Your task to perform on an android device: delete browsing data in the chrome app Image 0: 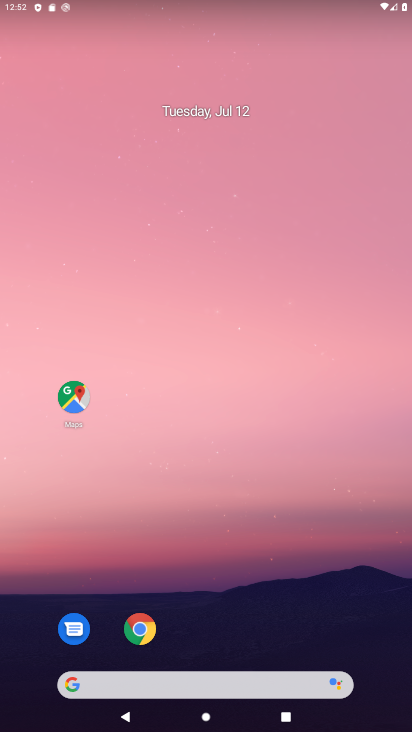
Step 0: press home button
Your task to perform on an android device: delete browsing data in the chrome app Image 1: 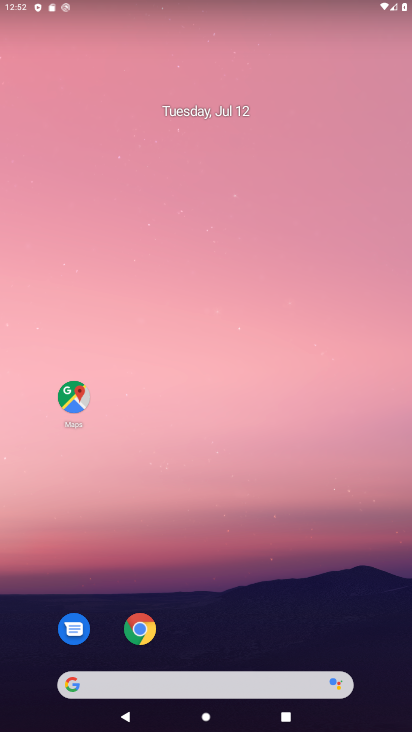
Step 1: click (135, 622)
Your task to perform on an android device: delete browsing data in the chrome app Image 2: 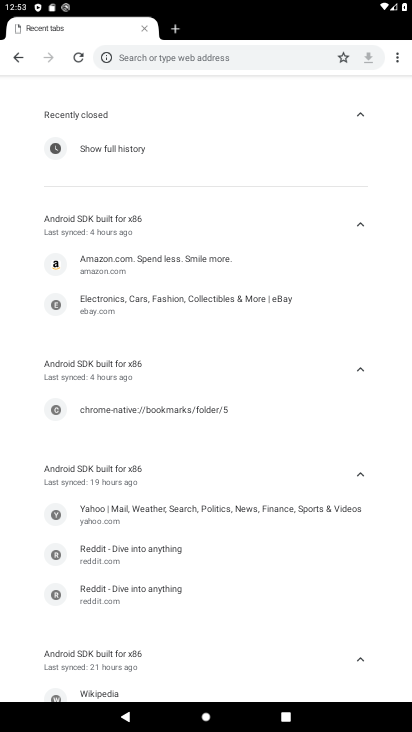
Step 2: press home button
Your task to perform on an android device: delete browsing data in the chrome app Image 3: 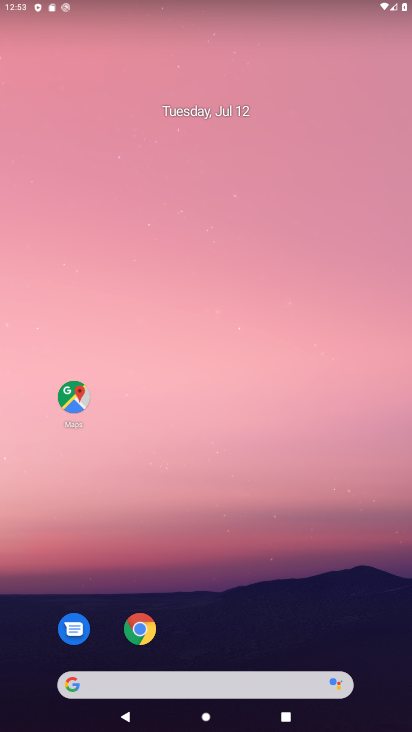
Step 3: click (141, 631)
Your task to perform on an android device: delete browsing data in the chrome app Image 4: 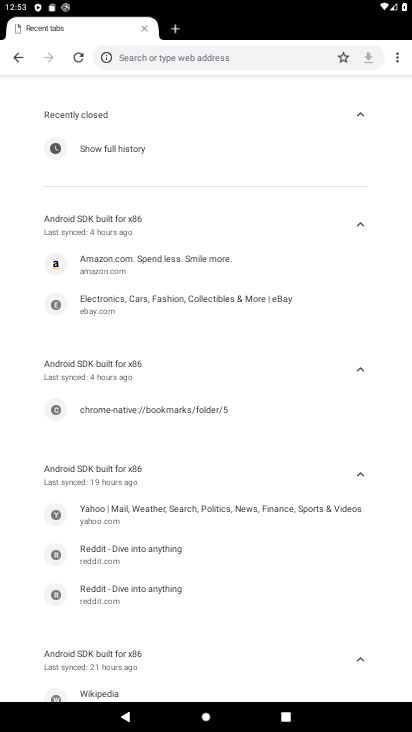
Step 4: click (400, 53)
Your task to perform on an android device: delete browsing data in the chrome app Image 5: 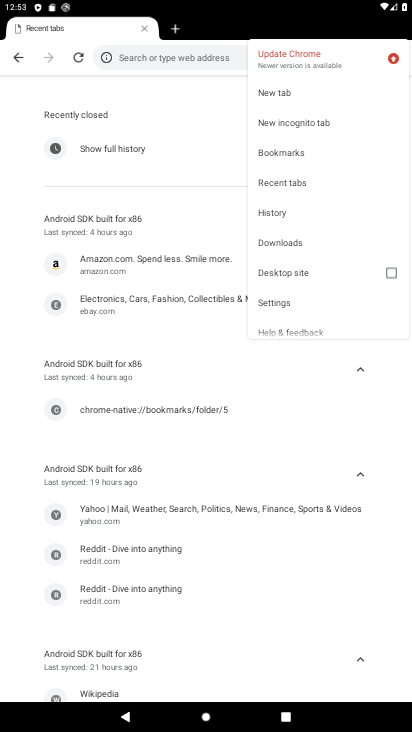
Step 5: click (294, 212)
Your task to perform on an android device: delete browsing data in the chrome app Image 6: 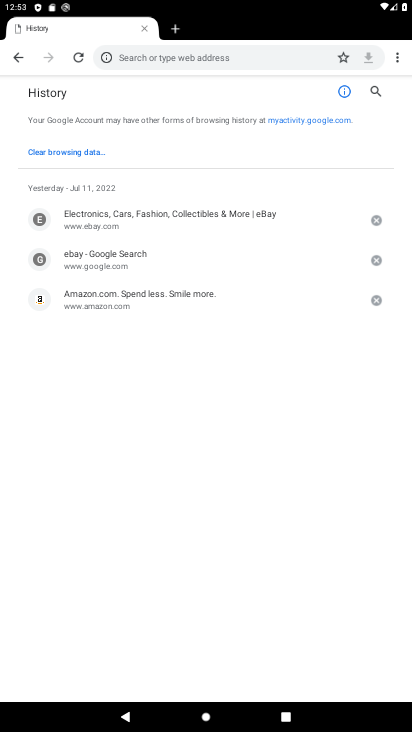
Step 6: click (64, 153)
Your task to perform on an android device: delete browsing data in the chrome app Image 7: 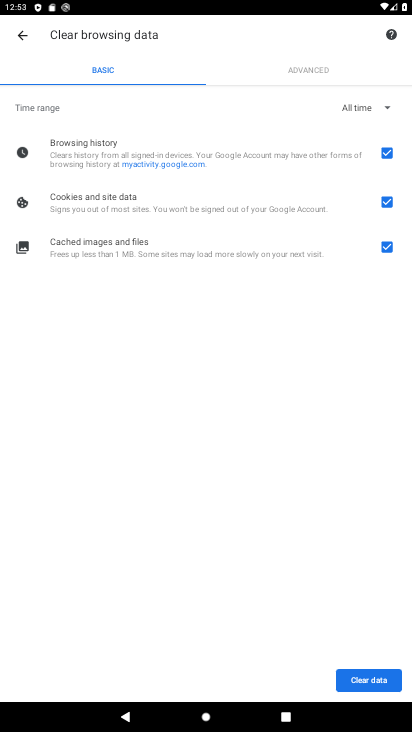
Step 7: click (379, 680)
Your task to perform on an android device: delete browsing data in the chrome app Image 8: 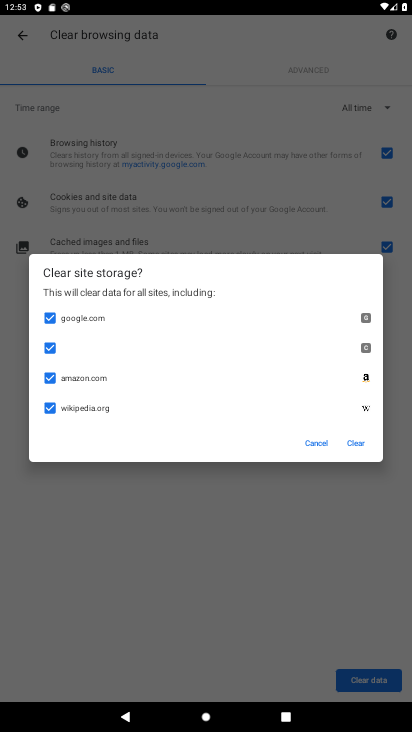
Step 8: click (359, 445)
Your task to perform on an android device: delete browsing data in the chrome app Image 9: 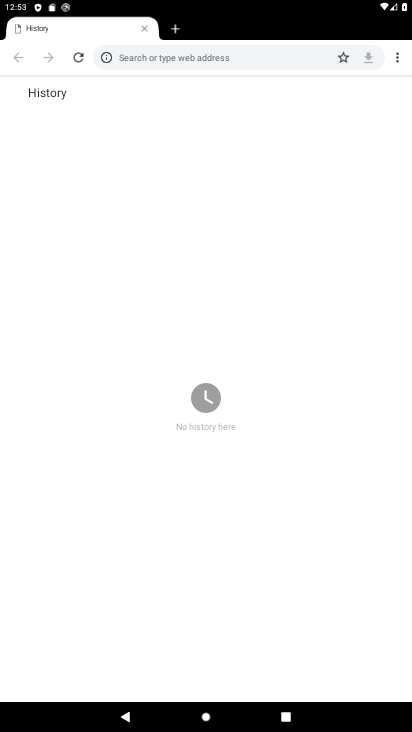
Step 9: task complete